Your task to perform on an android device: clear all cookies in the chrome app Image 0: 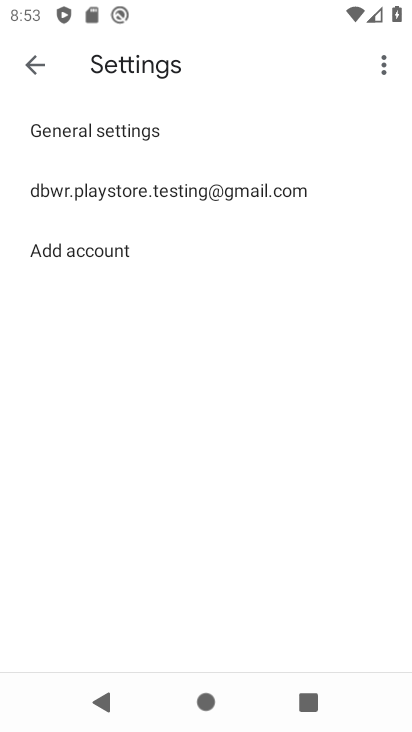
Step 0: press home button
Your task to perform on an android device: clear all cookies in the chrome app Image 1: 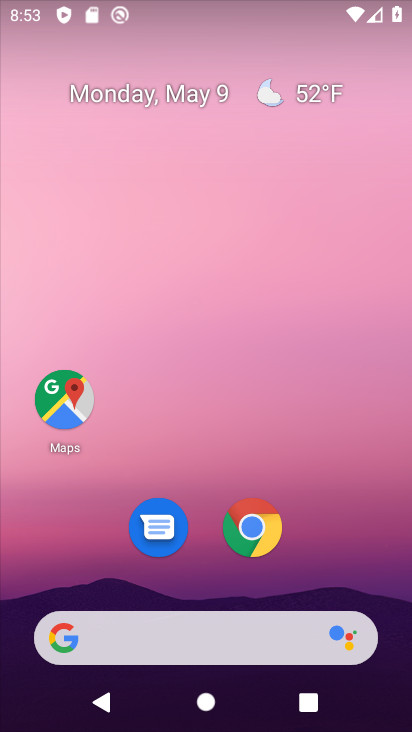
Step 1: drag from (376, 558) to (337, 152)
Your task to perform on an android device: clear all cookies in the chrome app Image 2: 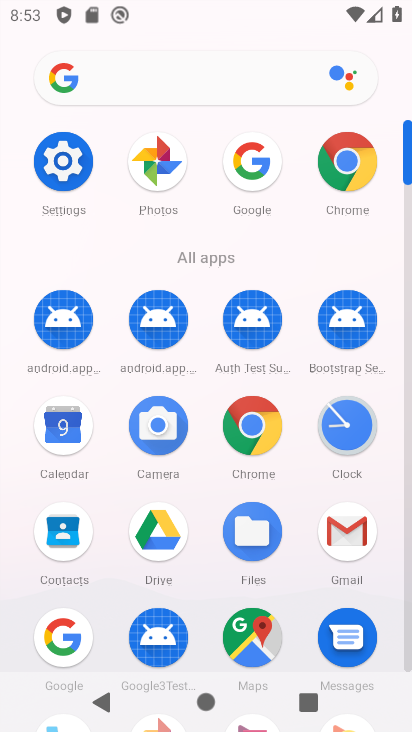
Step 2: click (276, 426)
Your task to perform on an android device: clear all cookies in the chrome app Image 3: 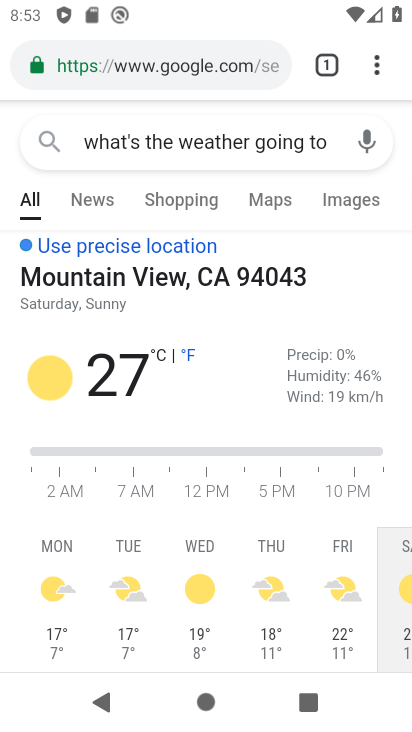
Step 3: task complete